Your task to perform on an android device: check battery use Image 0: 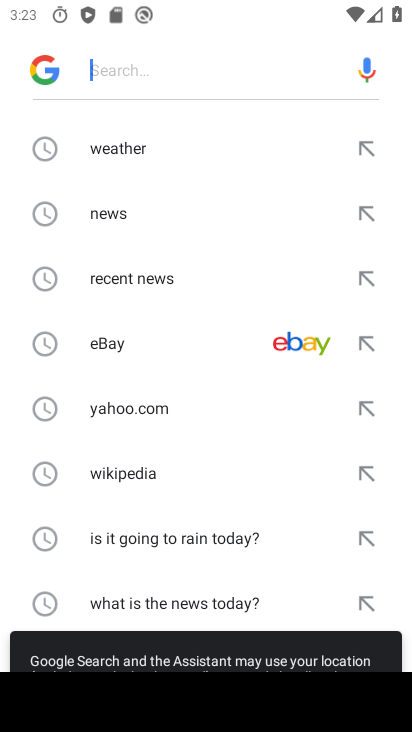
Step 0: drag from (281, 444) to (330, 53)
Your task to perform on an android device: check battery use Image 1: 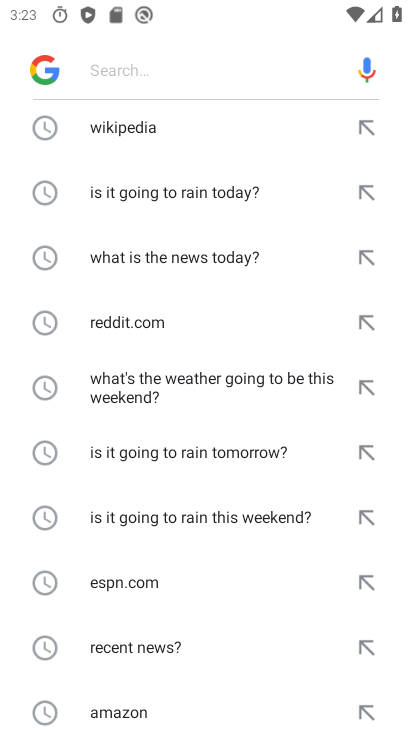
Step 1: press home button
Your task to perform on an android device: check battery use Image 2: 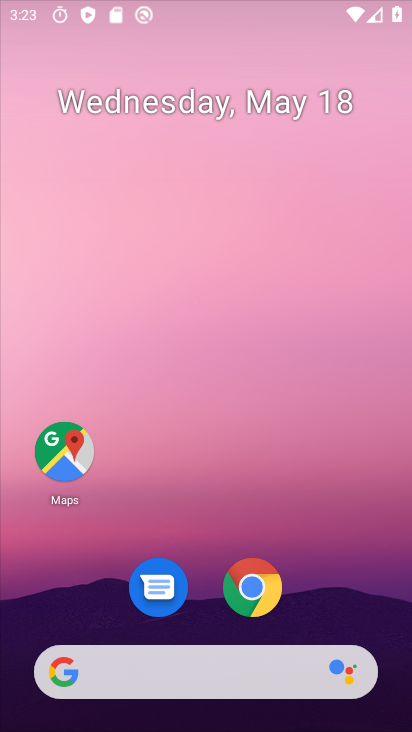
Step 2: drag from (363, 522) to (354, 55)
Your task to perform on an android device: check battery use Image 3: 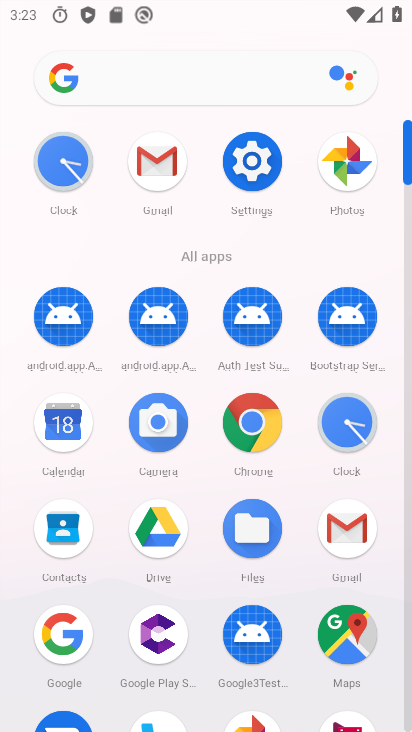
Step 3: click (257, 158)
Your task to perform on an android device: check battery use Image 4: 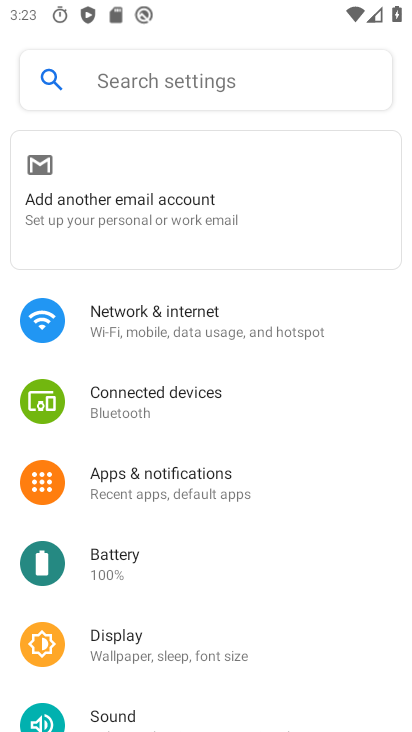
Step 4: drag from (186, 617) to (266, 140)
Your task to perform on an android device: check battery use Image 5: 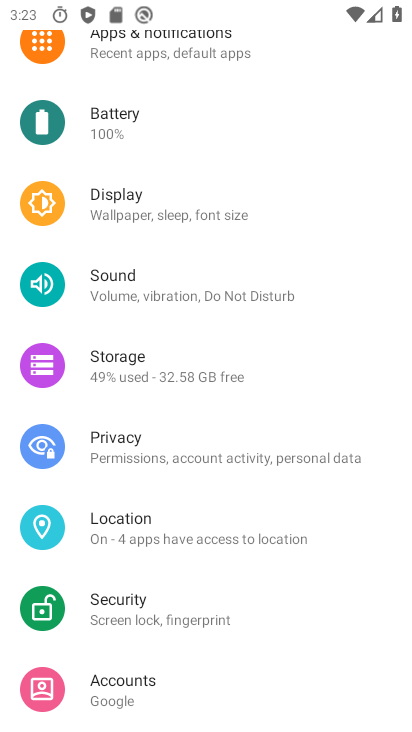
Step 5: click (143, 129)
Your task to perform on an android device: check battery use Image 6: 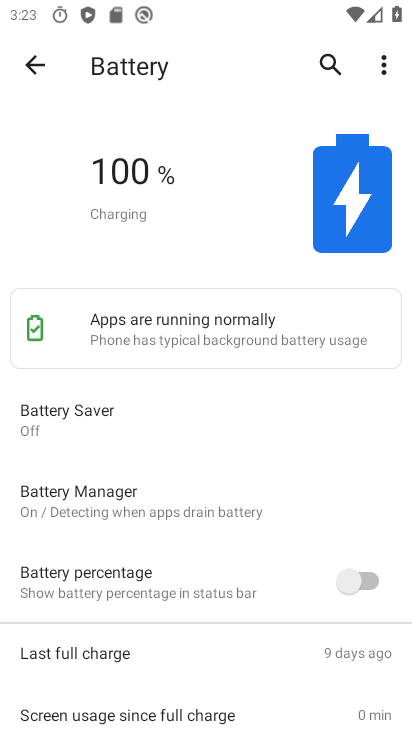
Step 6: click (386, 65)
Your task to perform on an android device: check battery use Image 7: 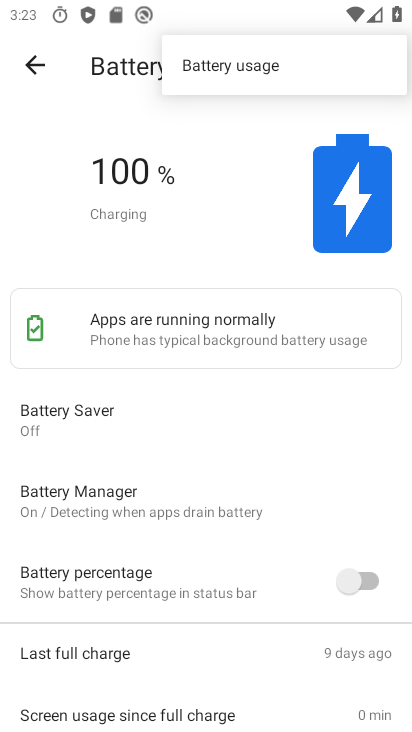
Step 7: click (297, 71)
Your task to perform on an android device: check battery use Image 8: 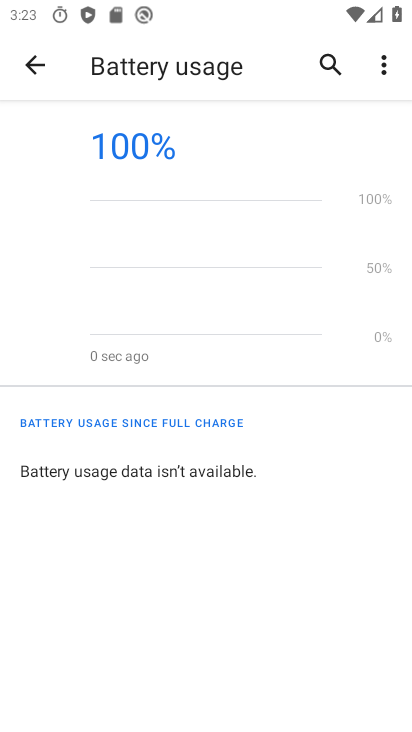
Step 8: task complete